Your task to perform on an android device: What is the recent news? Image 0: 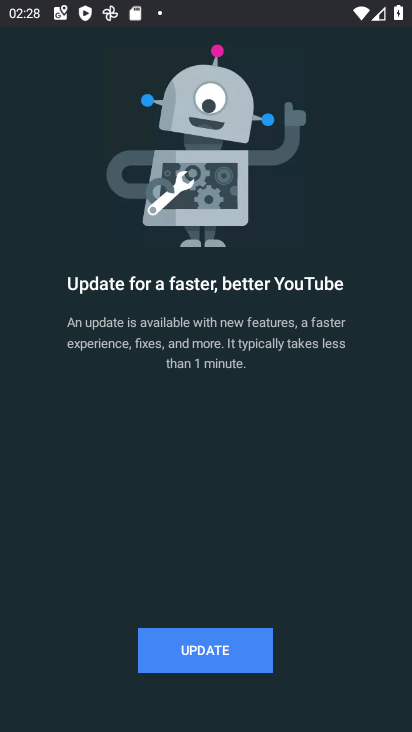
Step 0: press home button
Your task to perform on an android device: What is the recent news? Image 1: 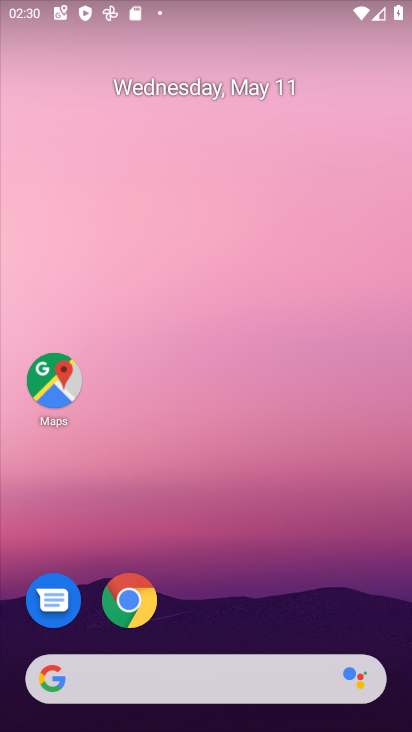
Step 1: click (222, 669)
Your task to perform on an android device: What is the recent news? Image 2: 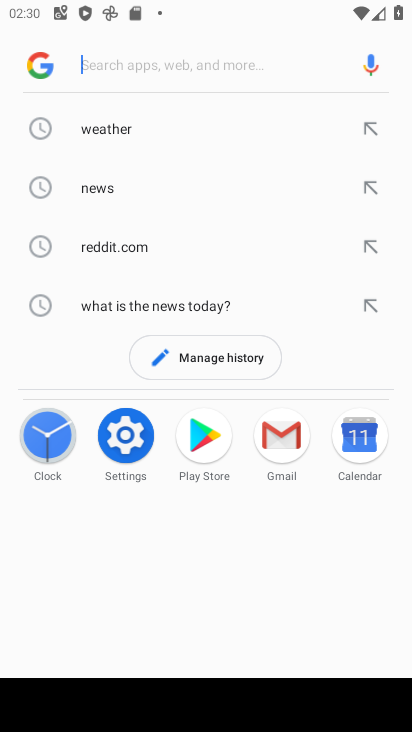
Step 2: type "recent news "
Your task to perform on an android device: What is the recent news? Image 3: 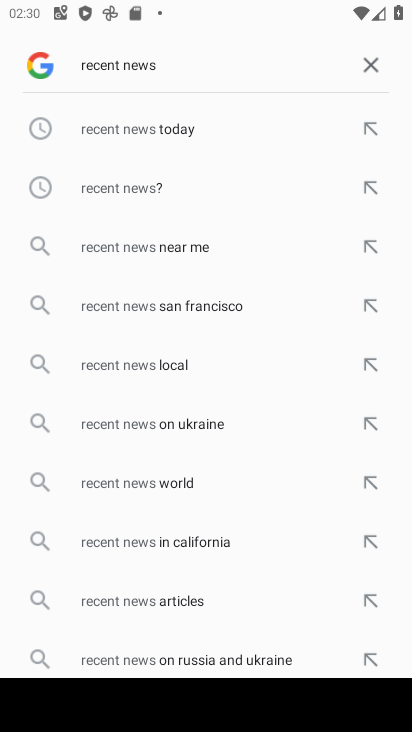
Step 3: click (217, 132)
Your task to perform on an android device: What is the recent news? Image 4: 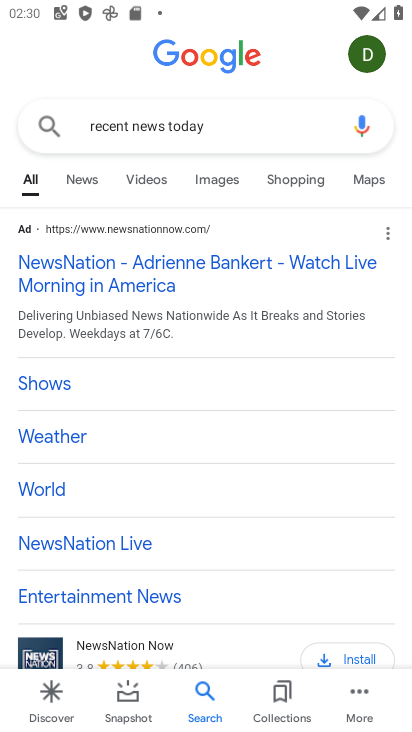
Step 4: task complete